Your task to perform on an android device: find photos in the google photos app Image 0: 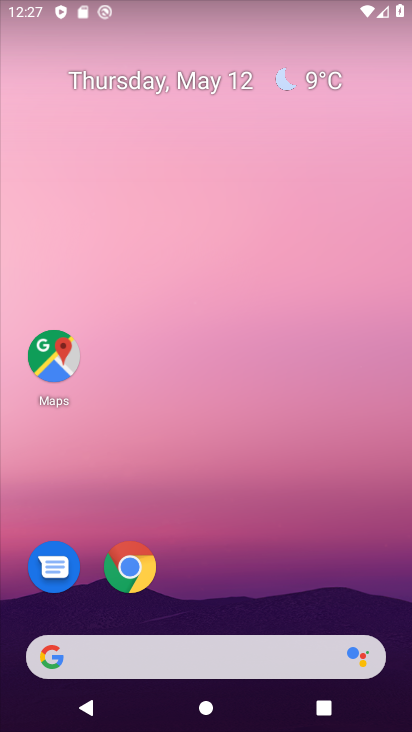
Step 0: drag from (177, 594) to (288, 80)
Your task to perform on an android device: find photos in the google photos app Image 1: 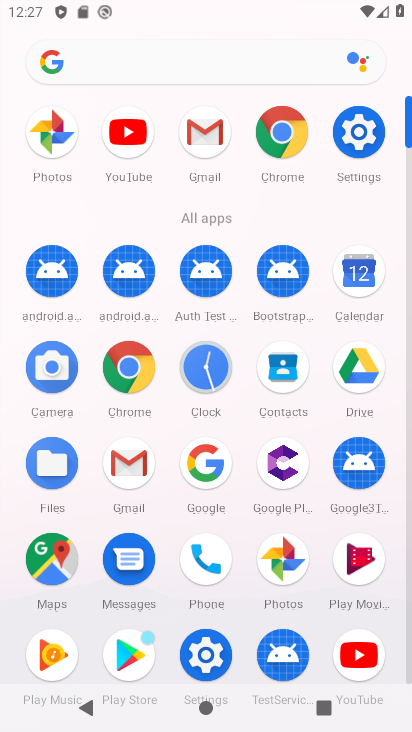
Step 1: click (282, 568)
Your task to perform on an android device: find photos in the google photos app Image 2: 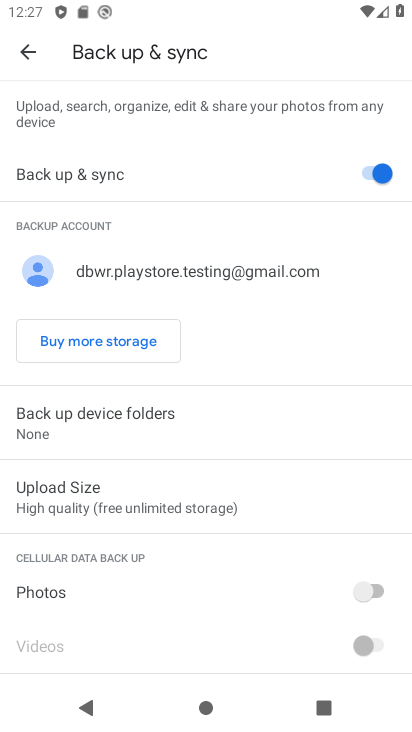
Step 2: task complete